Your task to perform on an android device: change your default location settings in chrome Image 0: 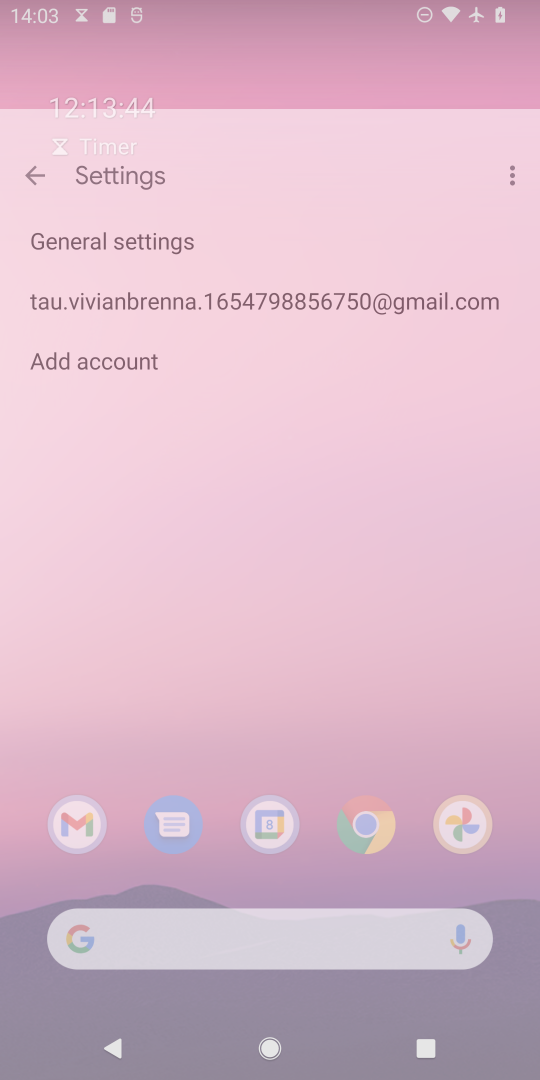
Step 0: press home button
Your task to perform on an android device: change your default location settings in chrome Image 1: 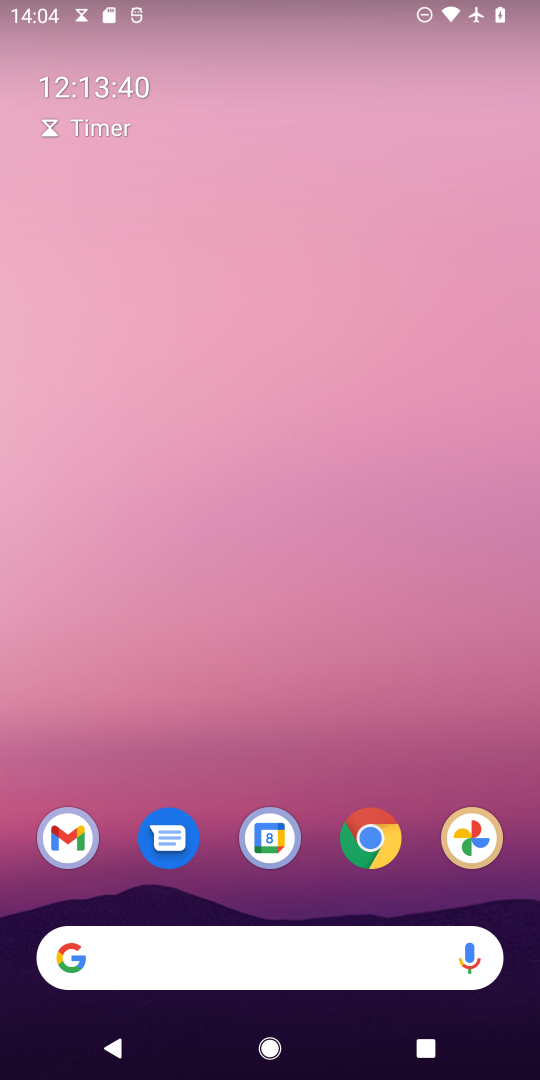
Step 1: click (366, 824)
Your task to perform on an android device: change your default location settings in chrome Image 2: 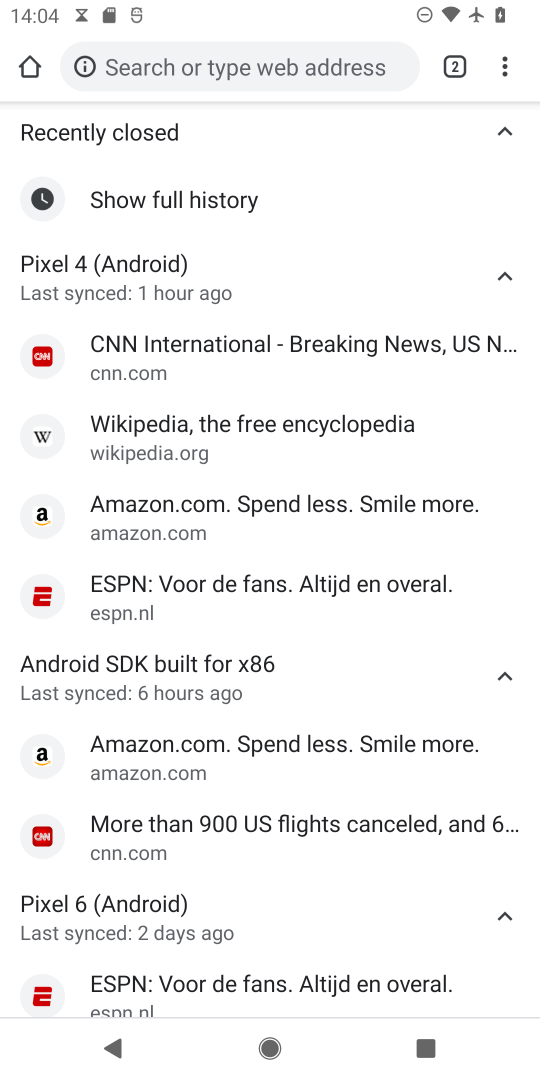
Step 2: drag from (500, 71) to (336, 675)
Your task to perform on an android device: change your default location settings in chrome Image 3: 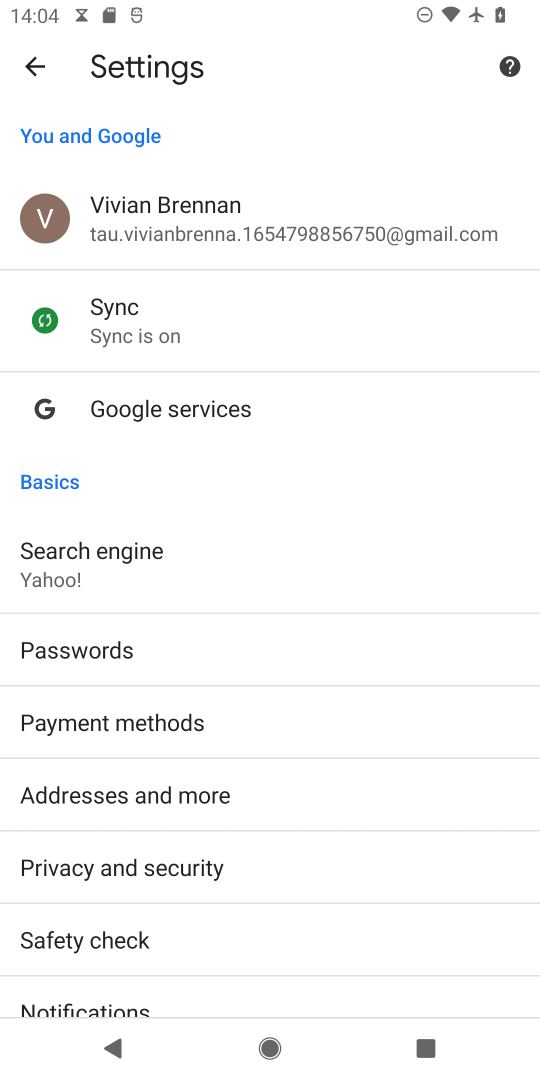
Step 3: drag from (330, 913) to (237, 394)
Your task to perform on an android device: change your default location settings in chrome Image 4: 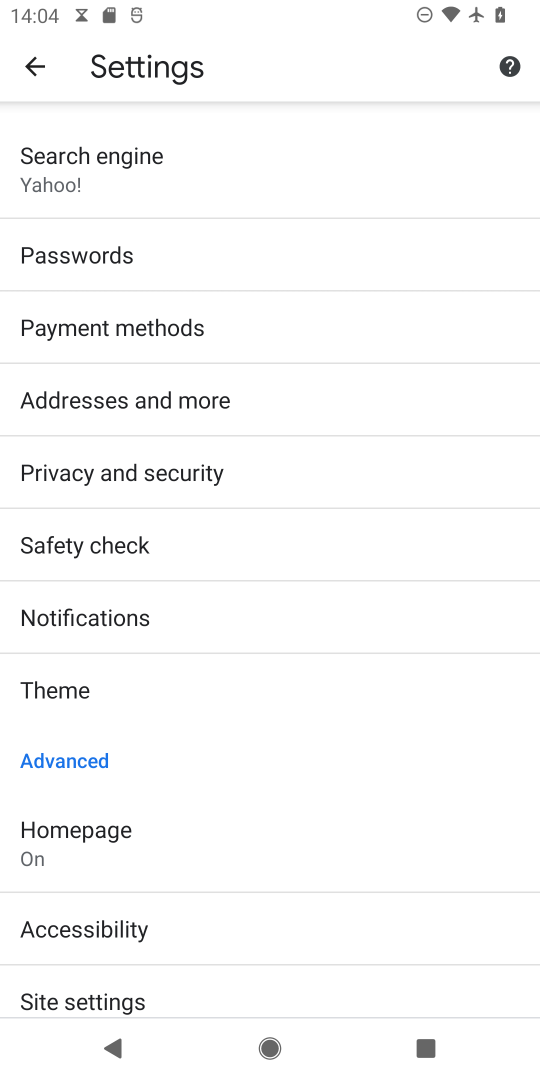
Step 4: click (116, 1000)
Your task to perform on an android device: change your default location settings in chrome Image 5: 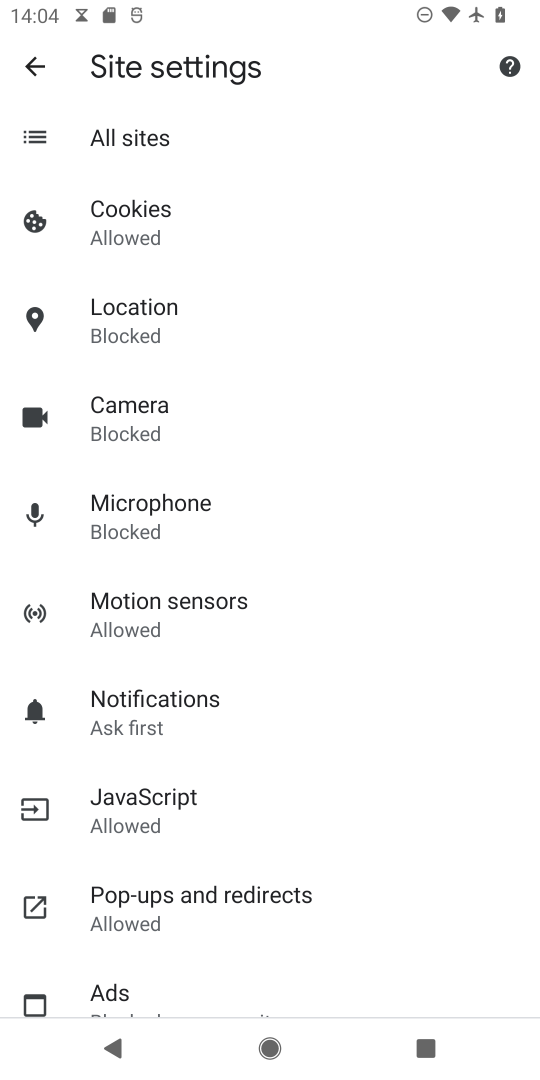
Step 5: drag from (398, 799) to (304, 287)
Your task to perform on an android device: change your default location settings in chrome Image 6: 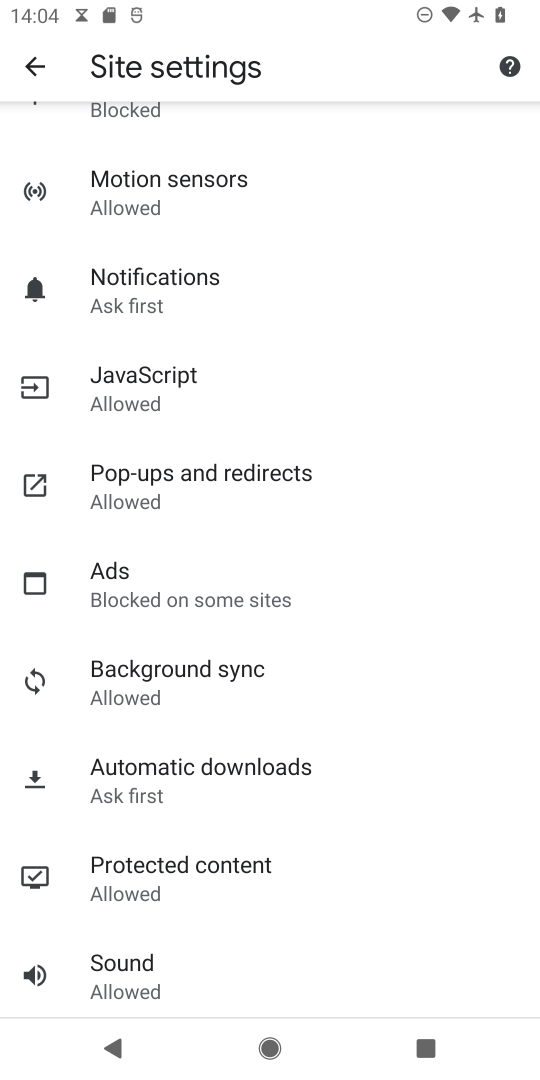
Step 6: drag from (419, 844) to (347, 318)
Your task to perform on an android device: change your default location settings in chrome Image 7: 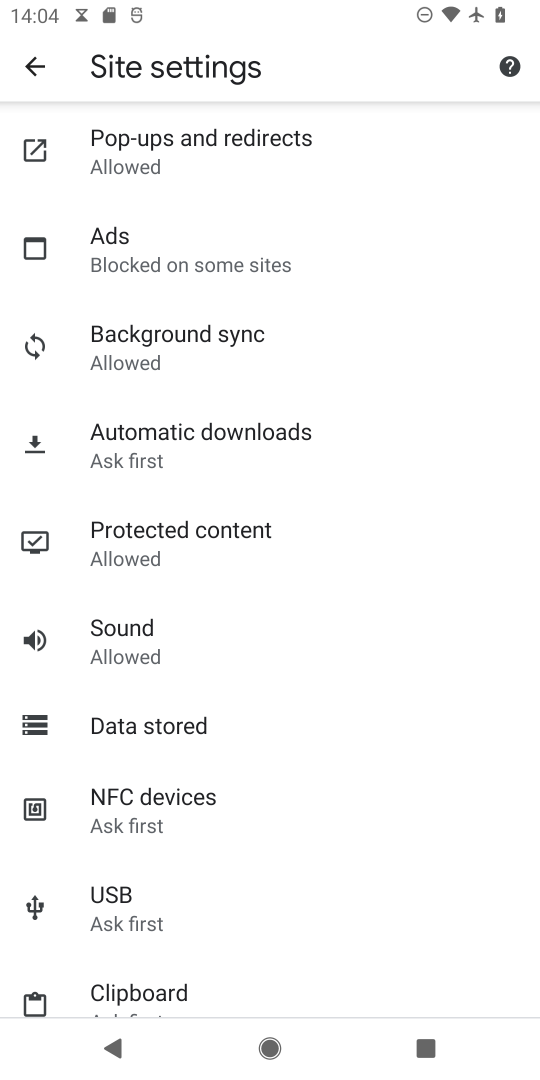
Step 7: drag from (426, 821) to (398, 313)
Your task to perform on an android device: change your default location settings in chrome Image 8: 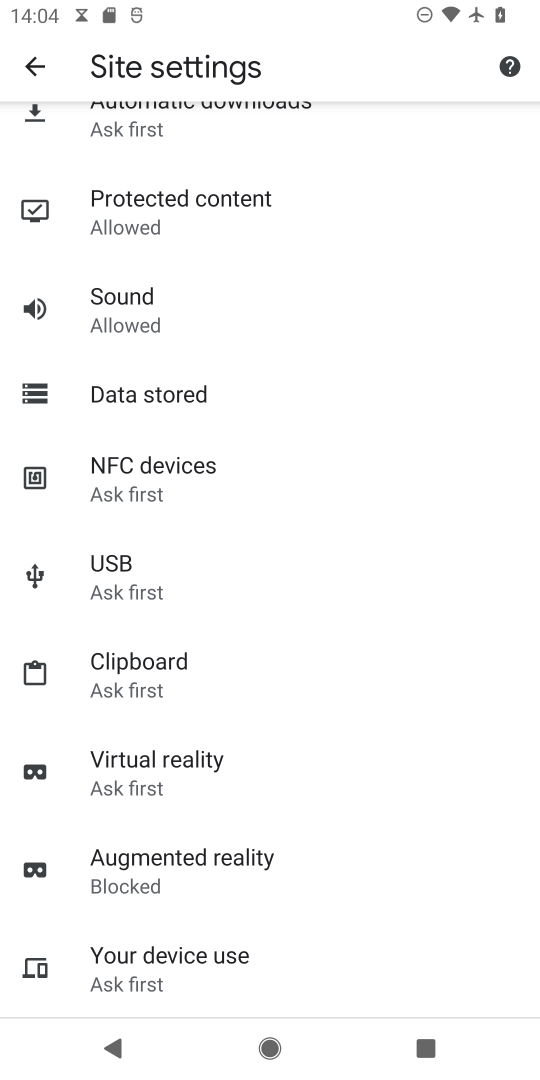
Step 8: drag from (305, 383) to (242, 1070)
Your task to perform on an android device: change your default location settings in chrome Image 9: 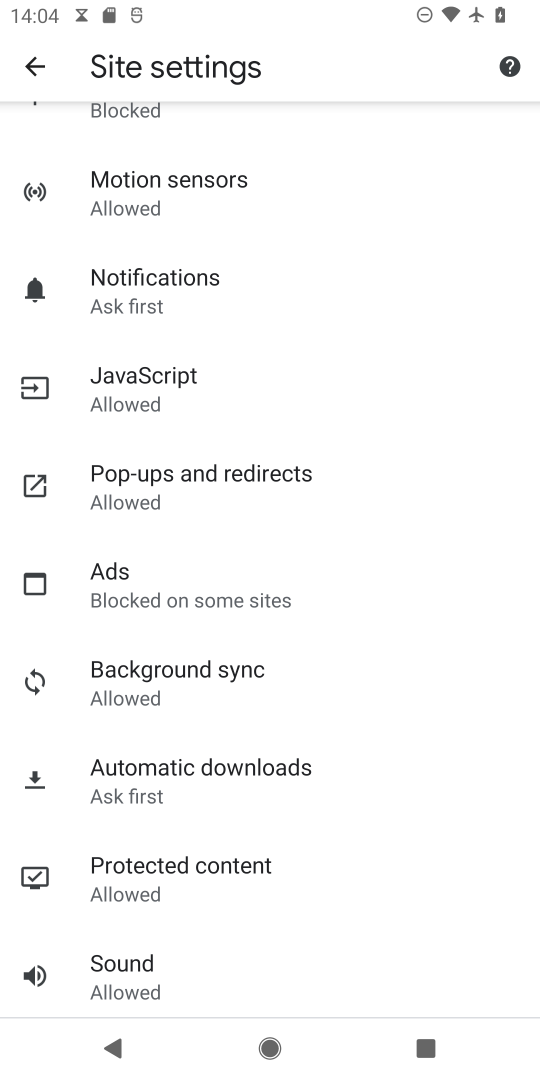
Step 9: drag from (372, 281) to (340, 1078)
Your task to perform on an android device: change your default location settings in chrome Image 10: 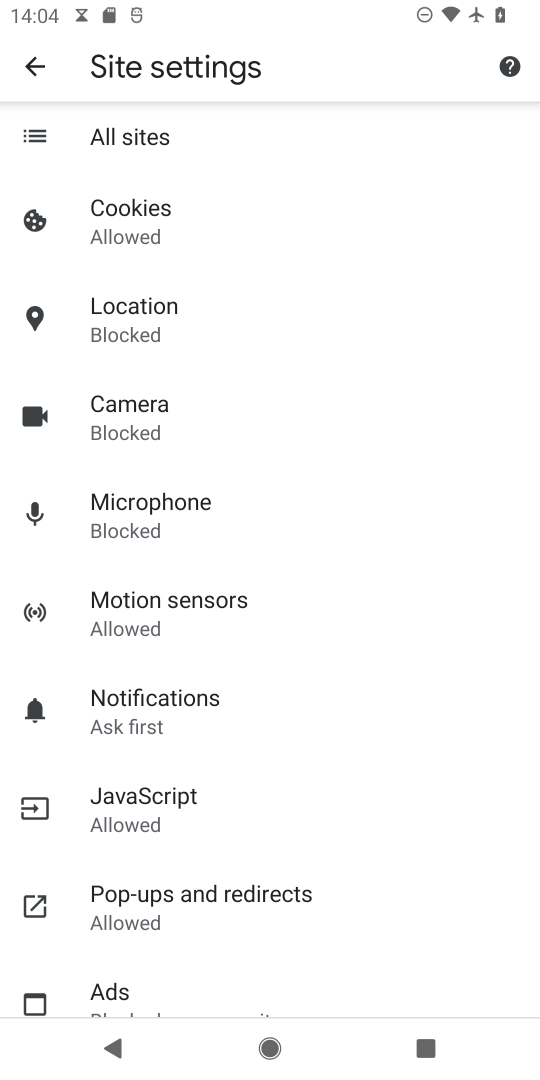
Step 10: click (130, 320)
Your task to perform on an android device: change your default location settings in chrome Image 11: 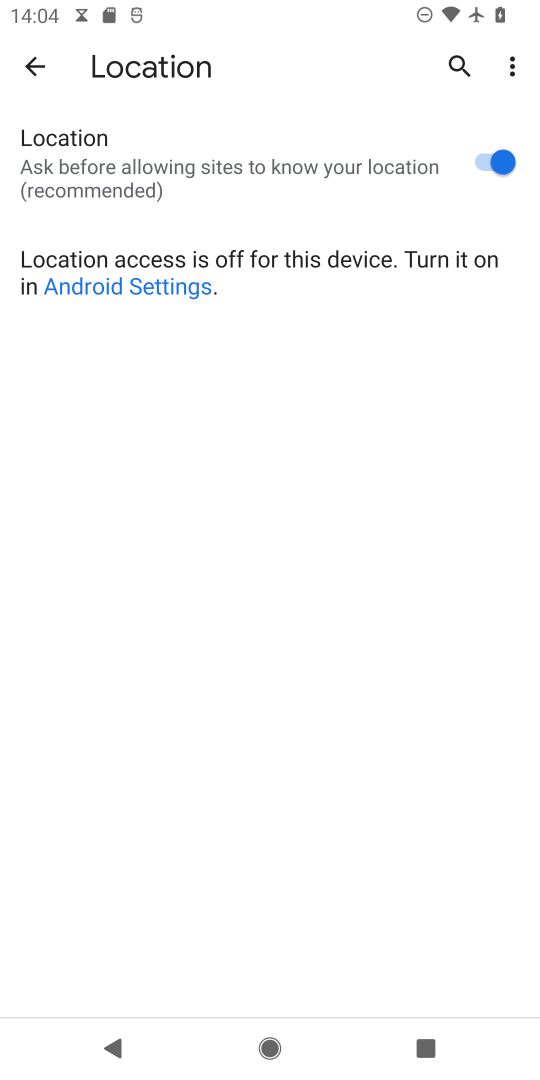
Step 11: click (492, 156)
Your task to perform on an android device: change your default location settings in chrome Image 12: 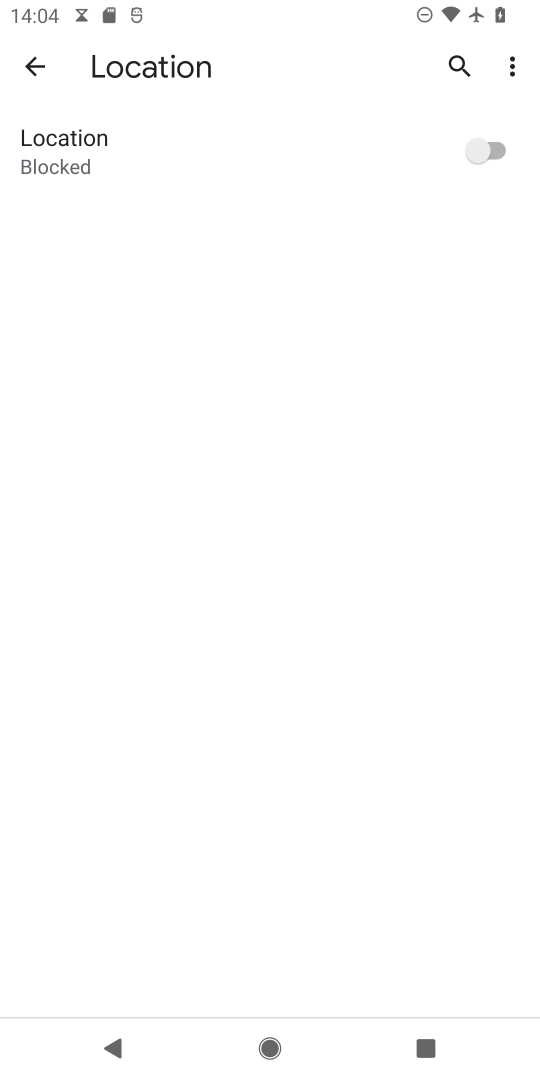
Step 12: task complete